Your task to perform on an android device: make emails show in primary in the gmail app Image 0: 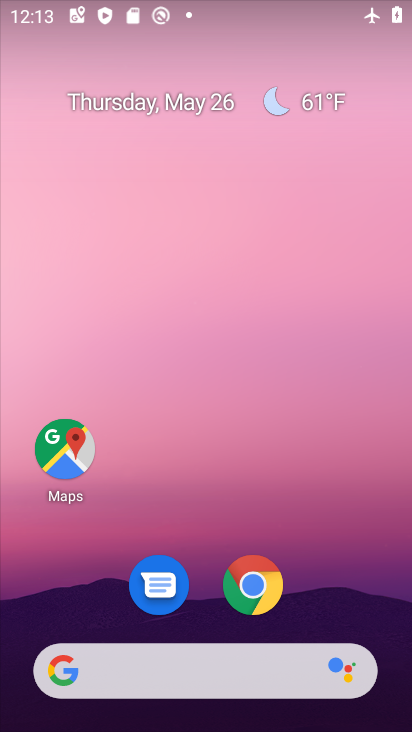
Step 0: drag from (228, 505) to (212, 57)
Your task to perform on an android device: make emails show in primary in the gmail app Image 1: 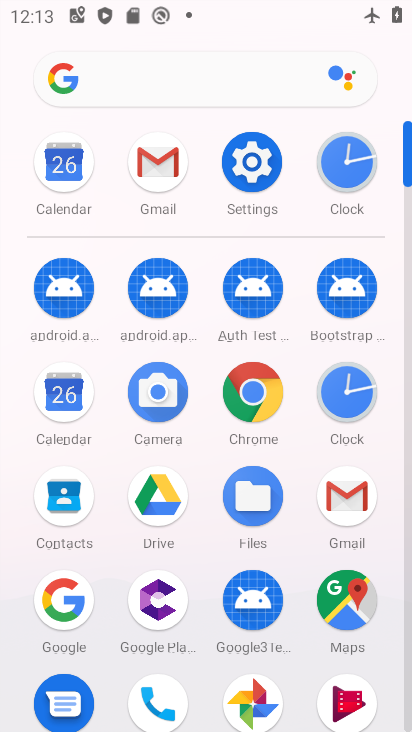
Step 1: click (163, 159)
Your task to perform on an android device: make emails show in primary in the gmail app Image 2: 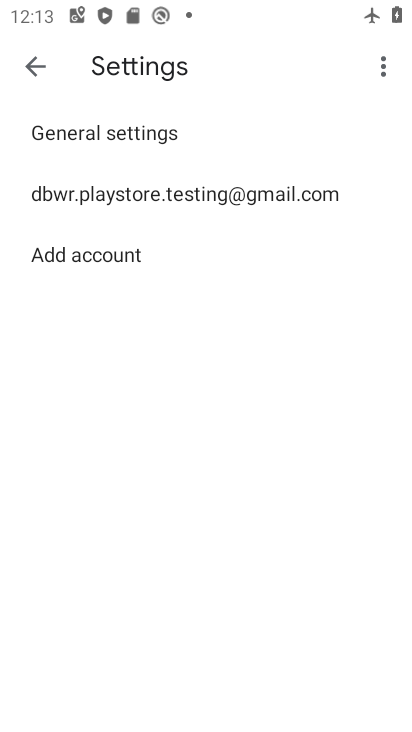
Step 2: click (103, 197)
Your task to perform on an android device: make emails show in primary in the gmail app Image 3: 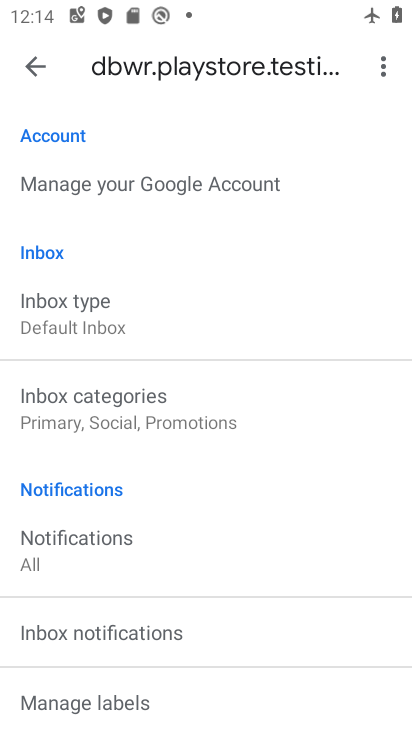
Step 3: click (116, 394)
Your task to perform on an android device: make emails show in primary in the gmail app Image 4: 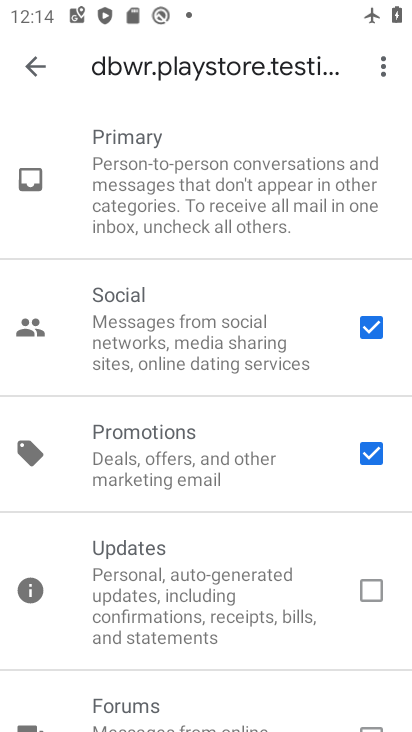
Step 4: click (371, 327)
Your task to perform on an android device: make emails show in primary in the gmail app Image 5: 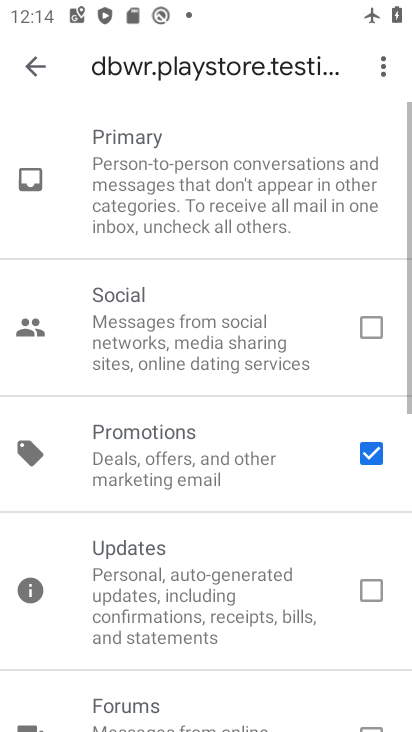
Step 5: click (367, 453)
Your task to perform on an android device: make emails show in primary in the gmail app Image 6: 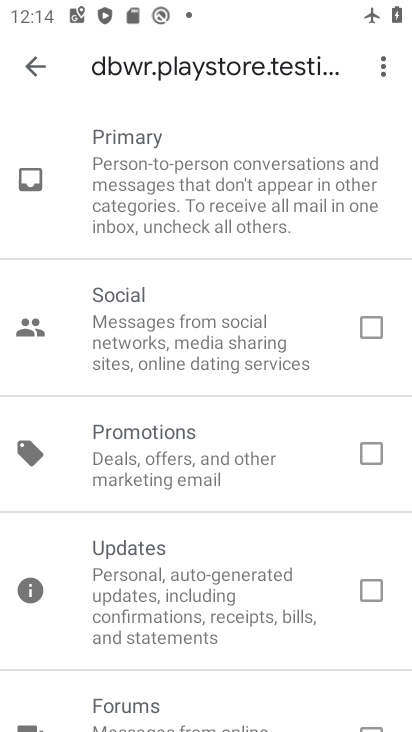
Step 6: task complete